Your task to perform on an android device: Open eBay Image 0: 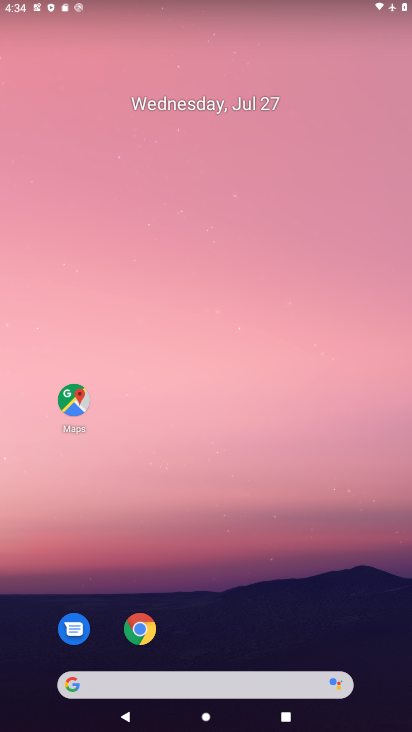
Step 0: click (135, 650)
Your task to perform on an android device: Open eBay Image 1: 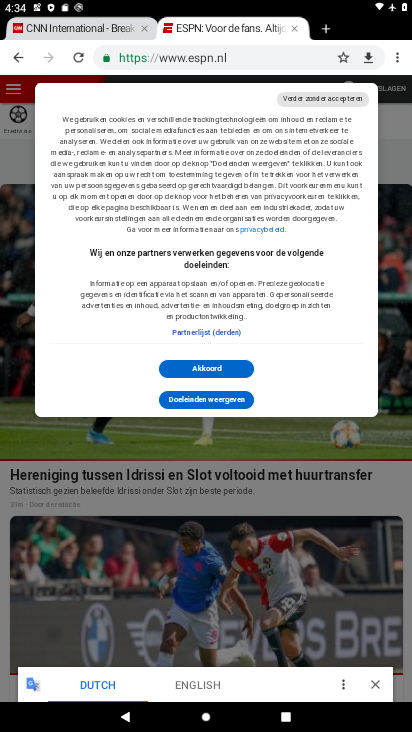
Step 1: click (324, 32)
Your task to perform on an android device: Open eBay Image 2: 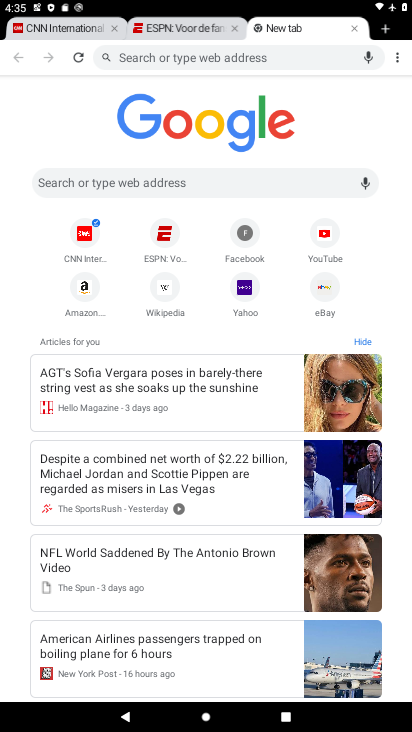
Step 2: click (315, 278)
Your task to perform on an android device: Open eBay Image 3: 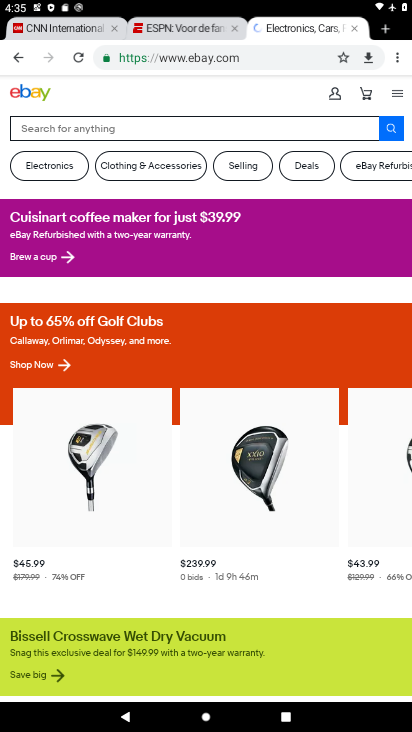
Step 3: task complete